Your task to perform on an android device: install app "PUBG MOBILE" Image 0: 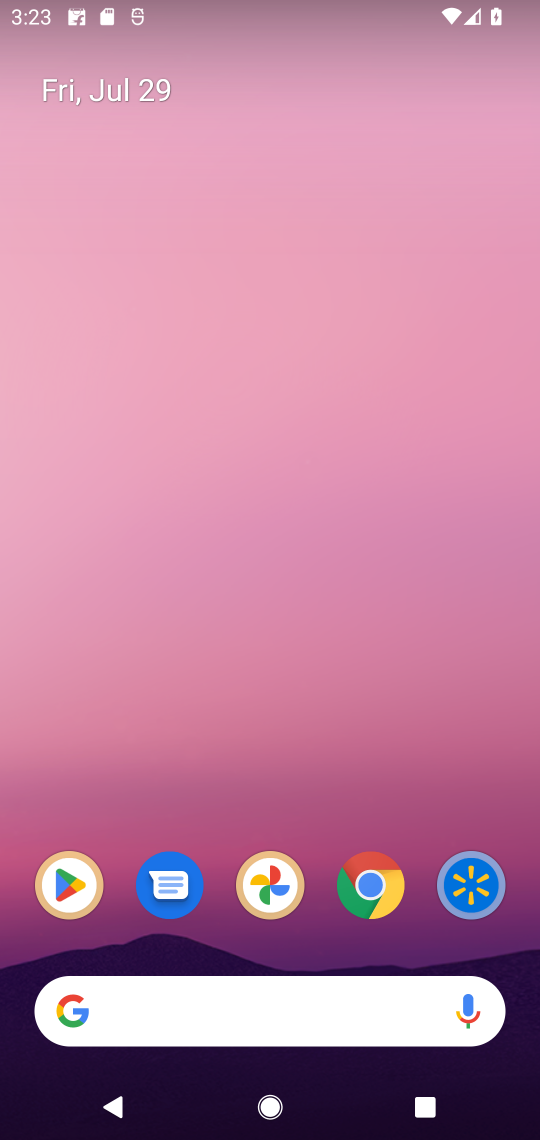
Step 0: click (71, 889)
Your task to perform on an android device: install app "PUBG MOBILE" Image 1: 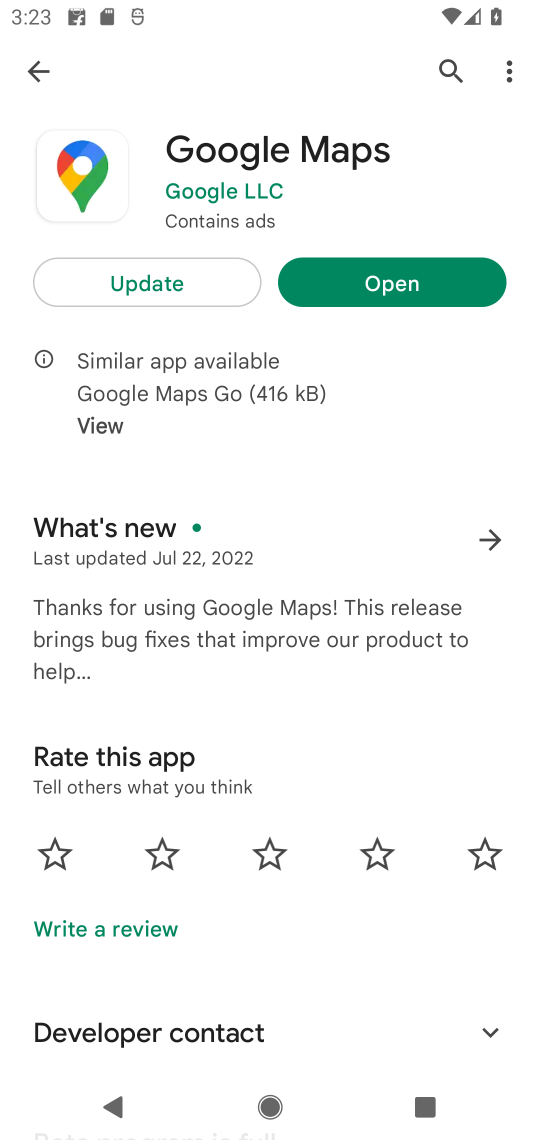
Step 1: click (457, 75)
Your task to perform on an android device: install app "PUBG MOBILE" Image 2: 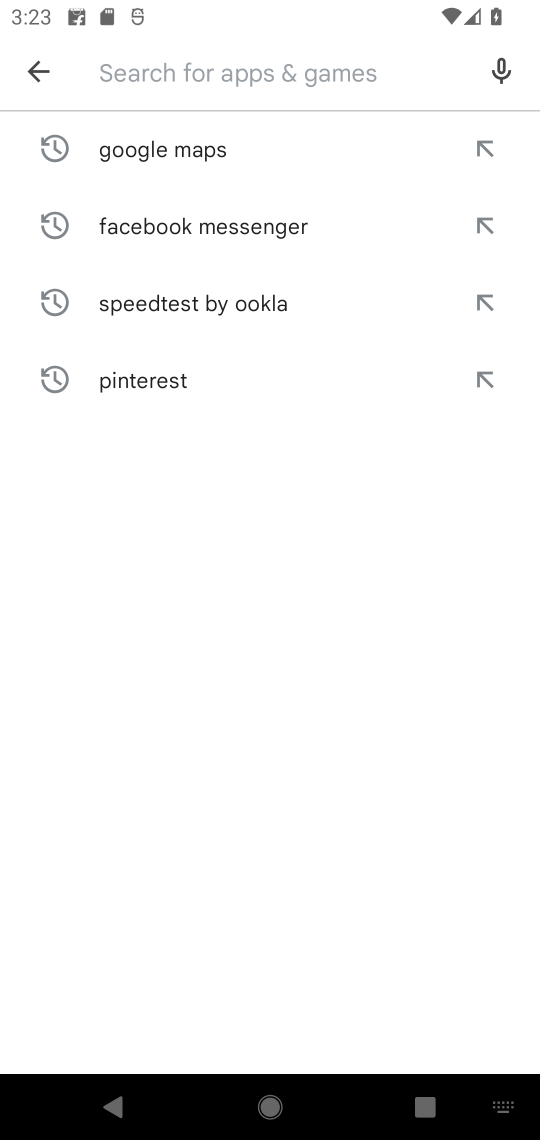
Step 2: click (394, 84)
Your task to perform on an android device: install app "PUBG MOBILE" Image 3: 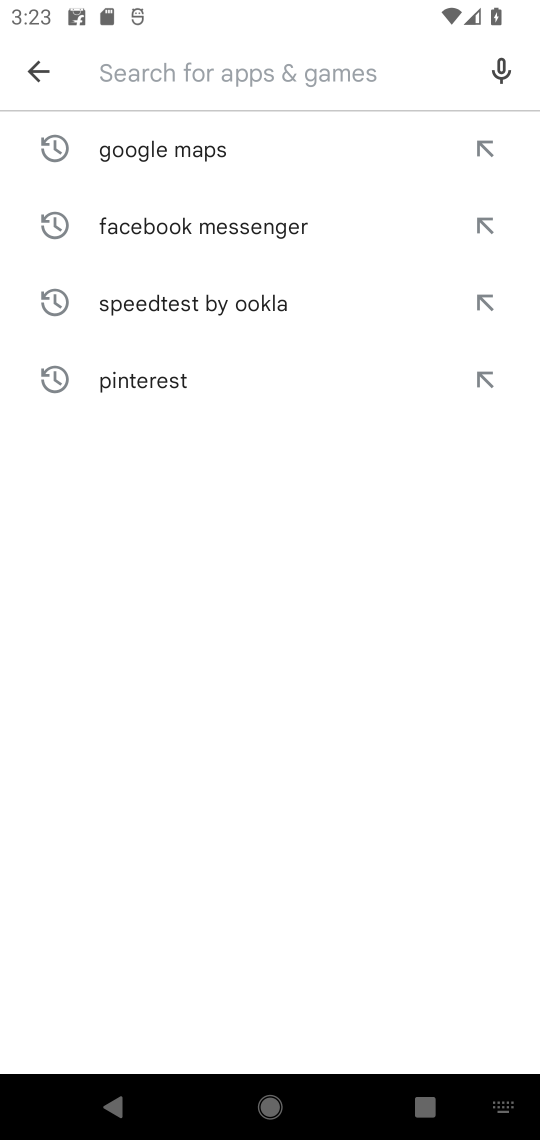
Step 3: type "PUBG MOBILE"
Your task to perform on an android device: install app "PUBG MOBILE" Image 4: 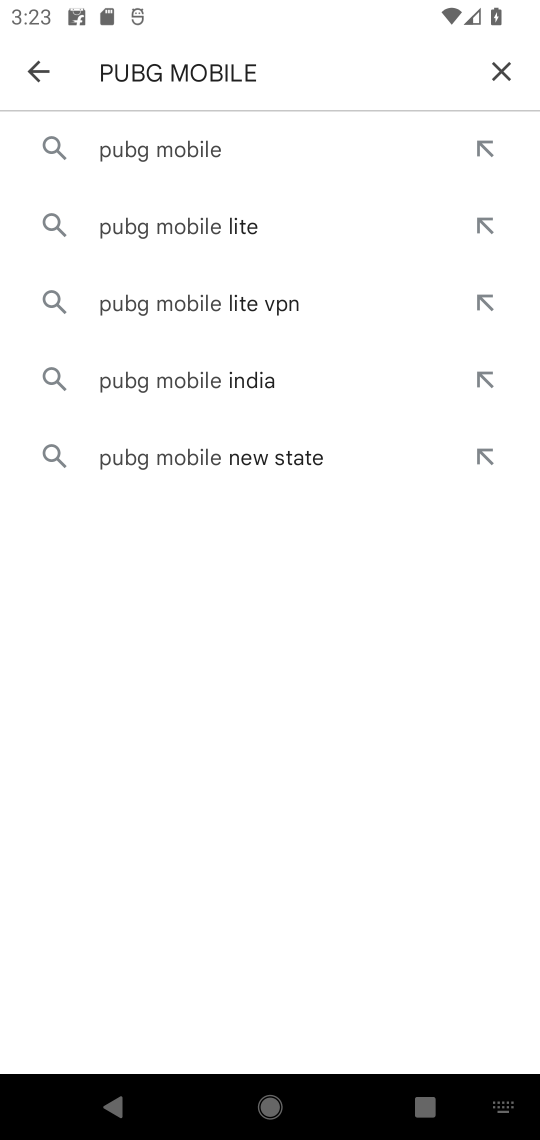
Step 4: click (179, 144)
Your task to perform on an android device: install app "PUBG MOBILE" Image 5: 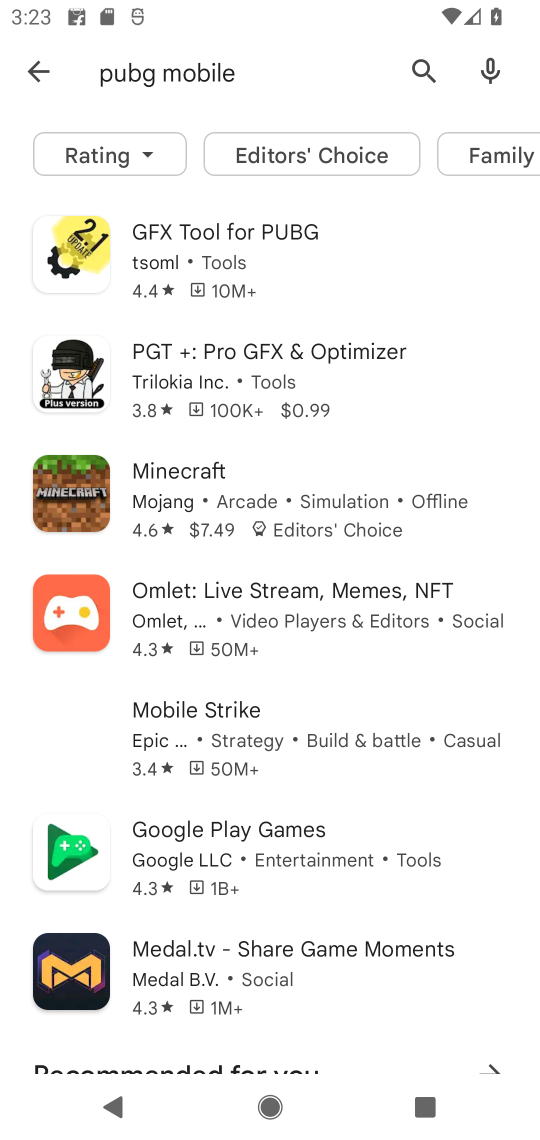
Step 5: task complete